Your task to perform on an android device: What's on my calendar tomorrow? Image 0: 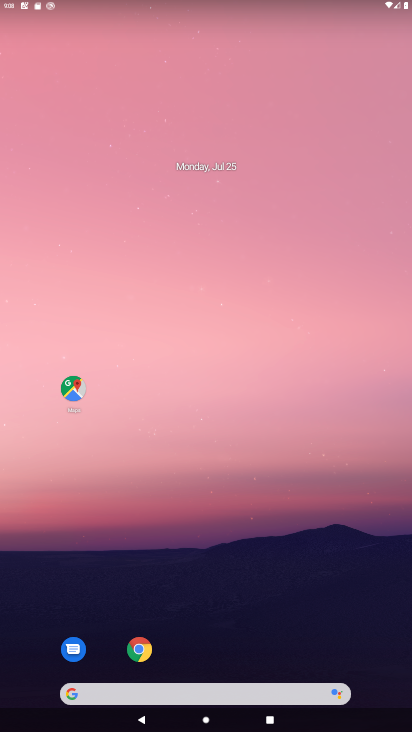
Step 0: drag from (256, 651) to (128, 116)
Your task to perform on an android device: What's on my calendar tomorrow? Image 1: 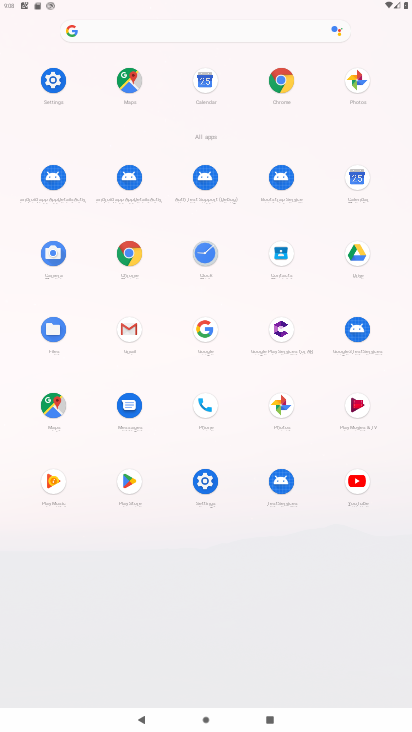
Step 1: click (352, 175)
Your task to perform on an android device: What's on my calendar tomorrow? Image 2: 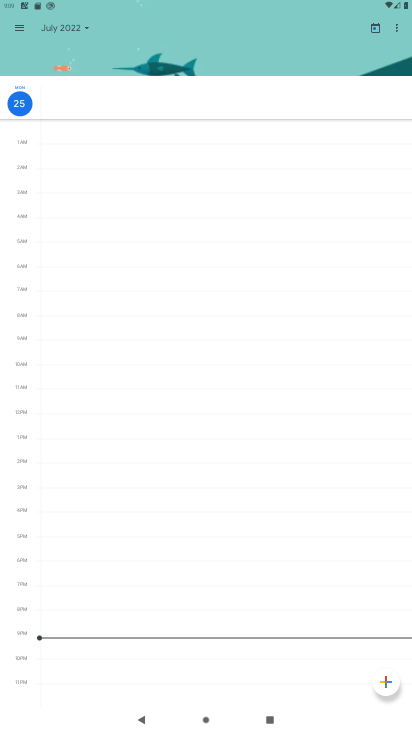
Step 2: click (21, 23)
Your task to perform on an android device: What's on my calendar tomorrow? Image 3: 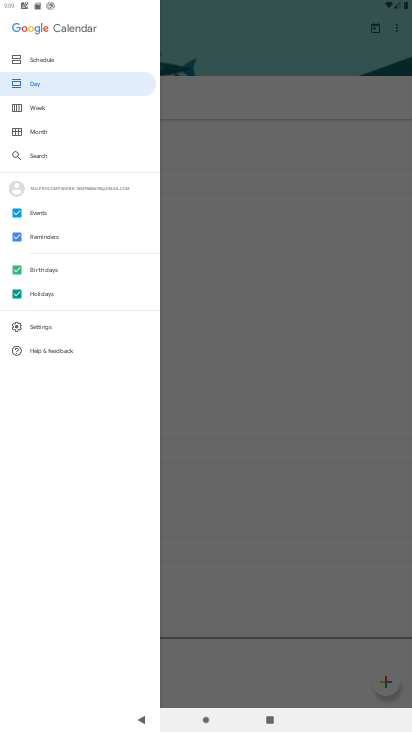
Step 3: click (33, 105)
Your task to perform on an android device: What's on my calendar tomorrow? Image 4: 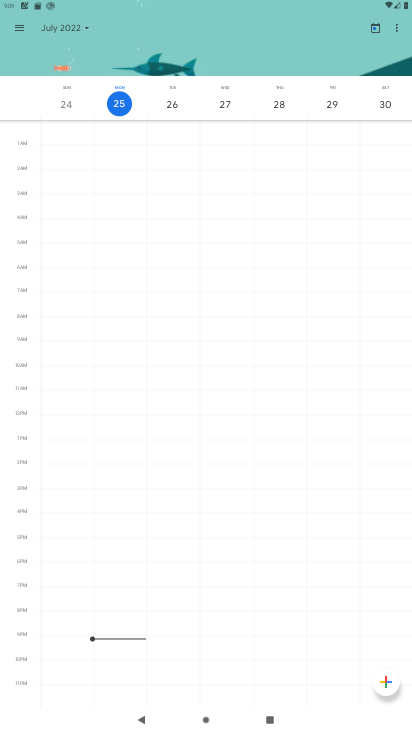
Step 4: click (163, 93)
Your task to perform on an android device: What's on my calendar tomorrow? Image 5: 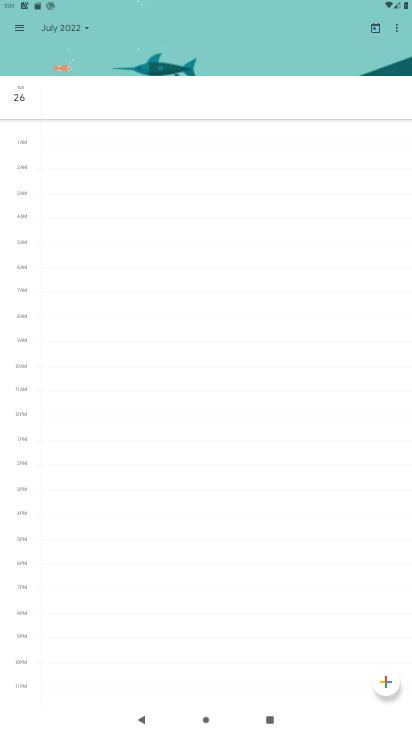
Step 5: task complete